Your task to perform on an android device: Open location settings Image 0: 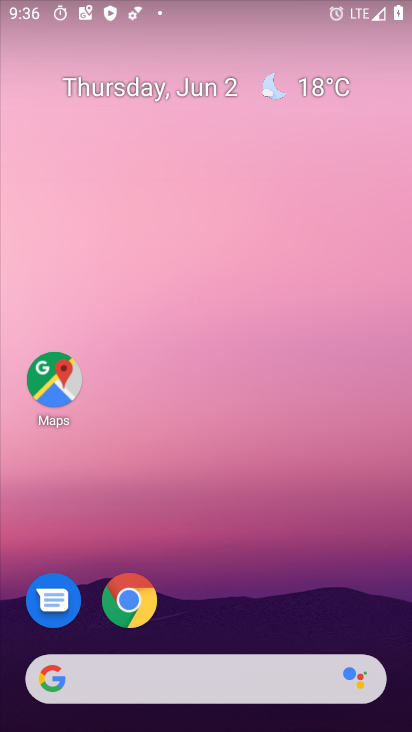
Step 0: drag from (350, 610) to (333, 171)
Your task to perform on an android device: Open location settings Image 1: 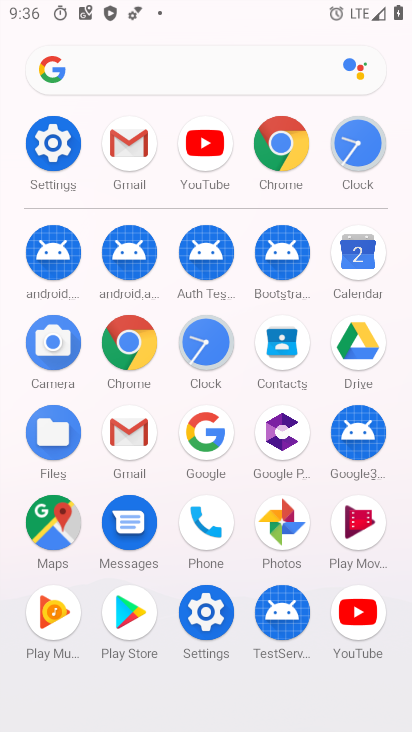
Step 1: click (221, 619)
Your task to perform on an android device: Open location settings Image 2: 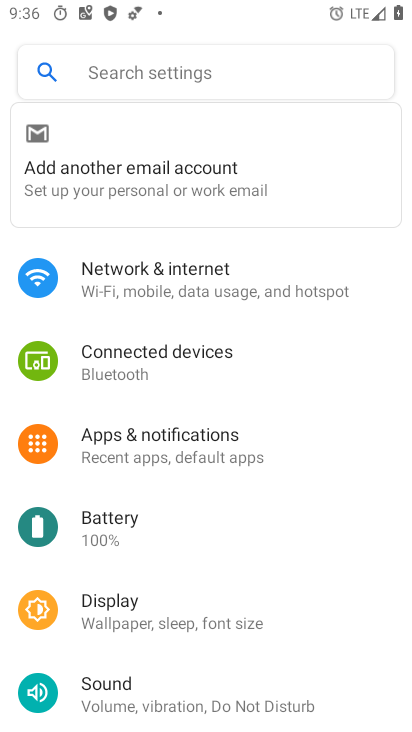
Step 2: drag from (351, 515) to (342, 420)
Your task to perform on an android device: Open location settings Image 3: 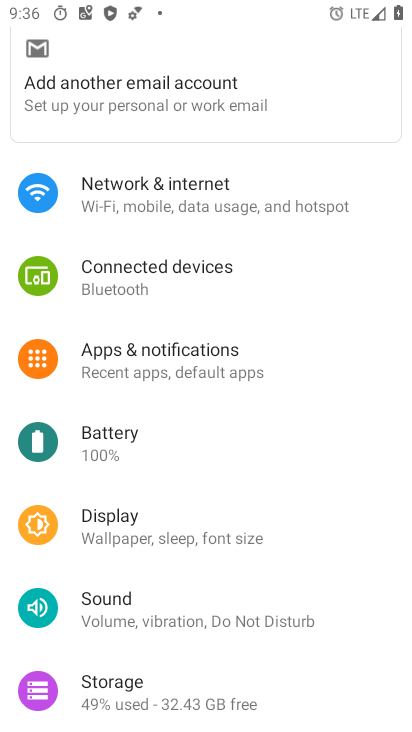
Step 3: drag from (368, 582) to (364, 447)
Your task to perform on an android device: Open location settings Image 4: 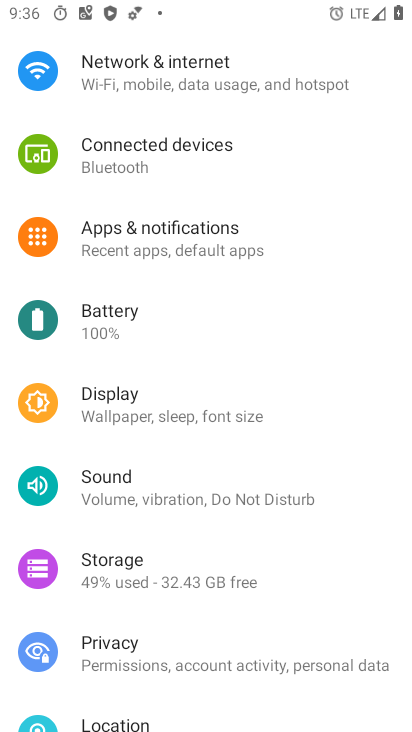
Step 4: drag from (361, 563) to (362, 440)
Your task to perform on an android device: Open location settings Image 5: 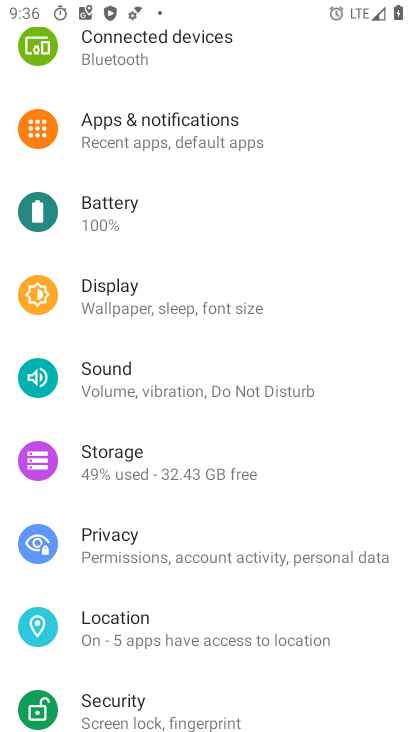
Step 5: drag from (359, 585) to (353, 468)
Your task to perform on an android device: Open location settings Image 6: 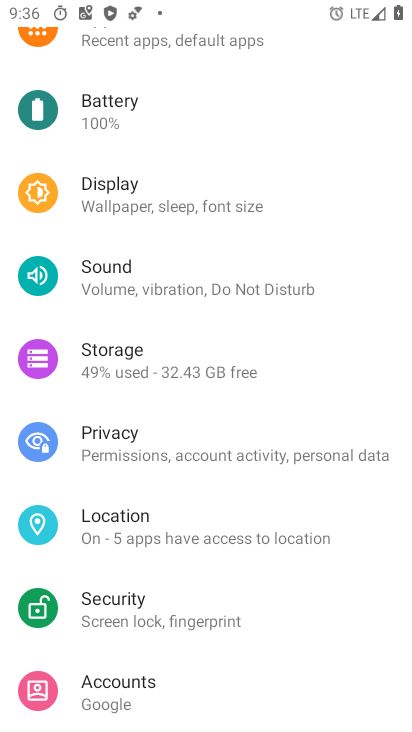
Step 6: drag from (357, 525) to (355, 422)
Your task to perform on an android device: Open location settings Image 7: 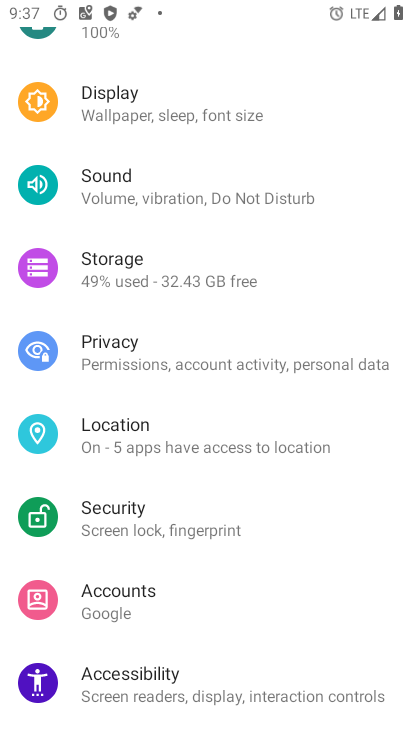
Step 7: drag from (363, 578) to (356, 264)
Your task to perform on an android device: Open location settings Image 8: 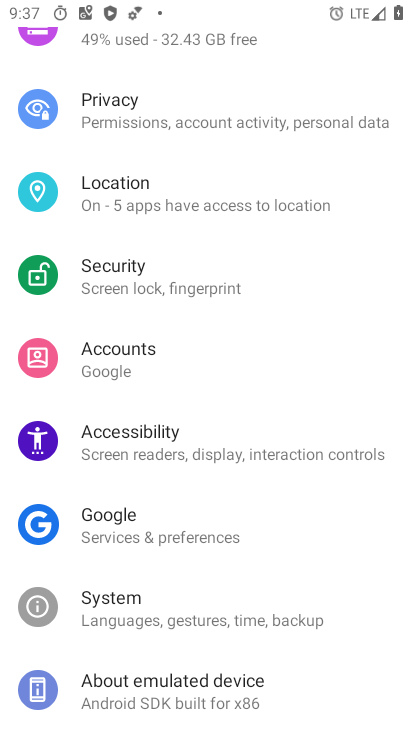
Step 8: click (288, 210)
Your task to perform on an android device: Open location settings Image 9: 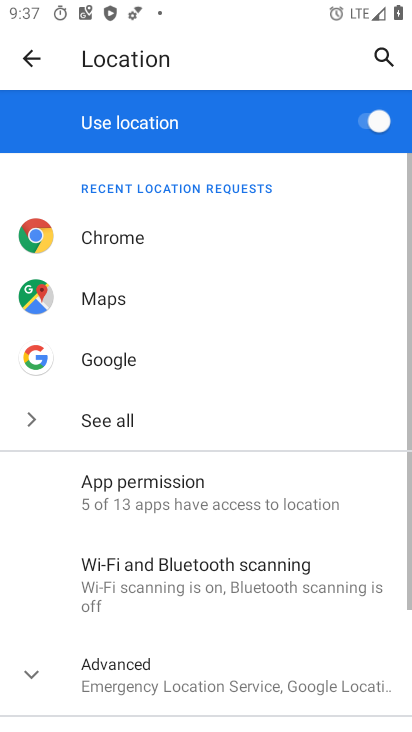
Step 9: task complete